Your task to perform on an android device: uninstall "NewsBreak: Local News & Alerts" Image 0: 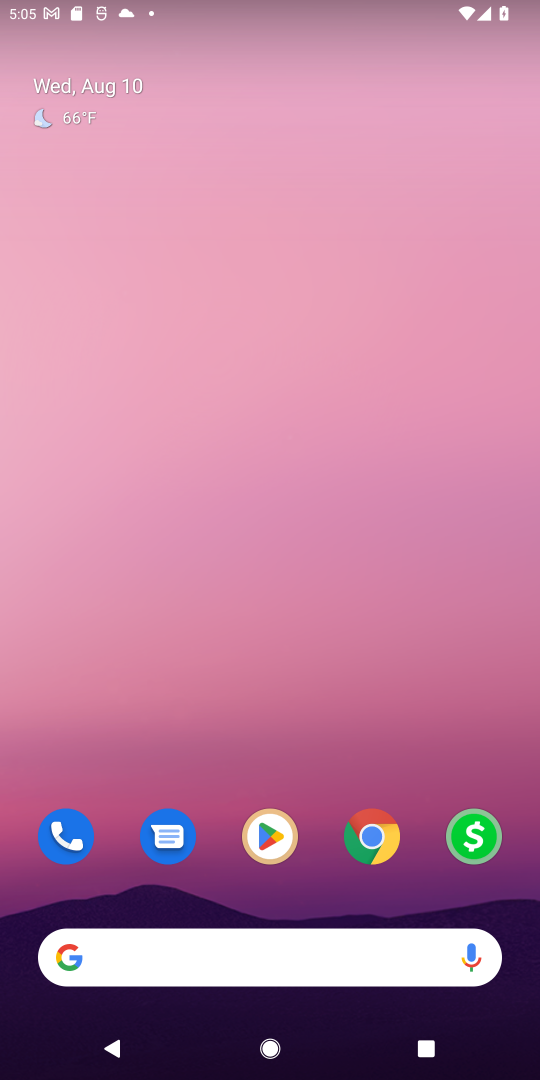
Step 0: drag from (246, 838) to (312, 255)
Your task to perform on an android device: uninstall "NewsBreak: Local News & Alerts" Image 1: 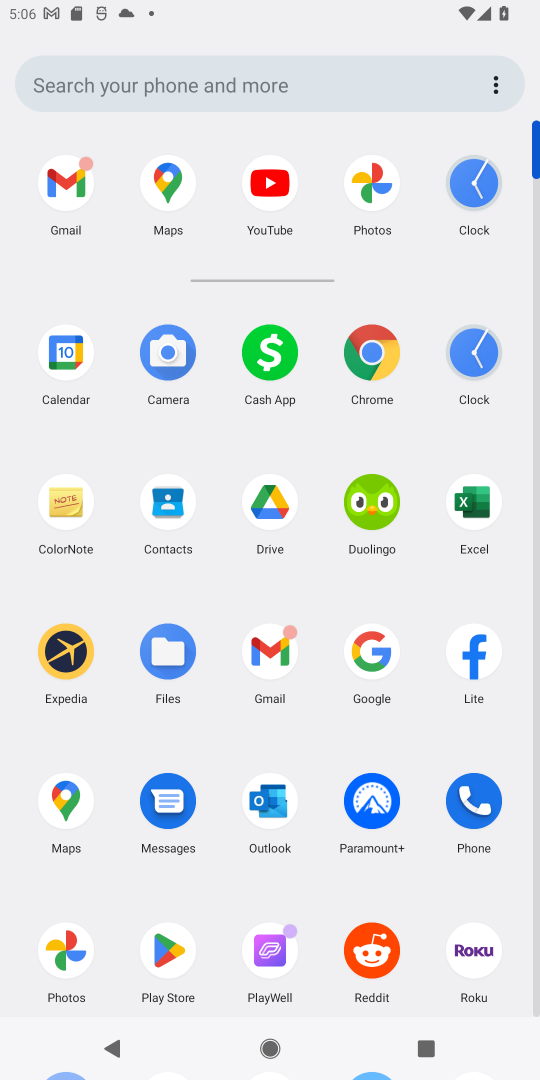
Step 1: click (171, 948)
Your task to perform on an android device: uninstall "NewsBreak: Local News & Alerts" Image 2: 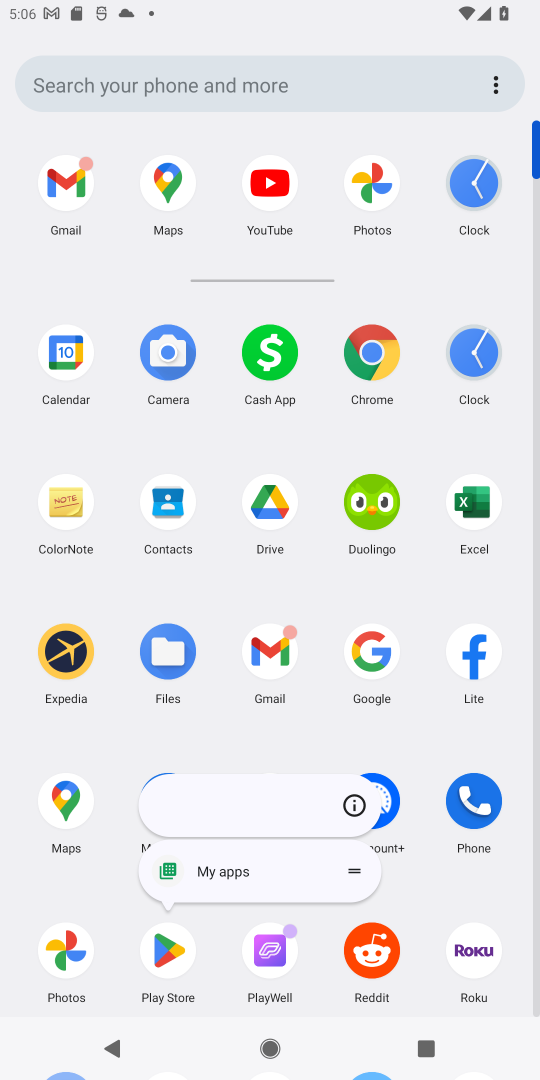
Step 2: click (162, 951)
Your task to perform on an android device: uninstall "NewsBreak: Local News & Alerts" Image 3: 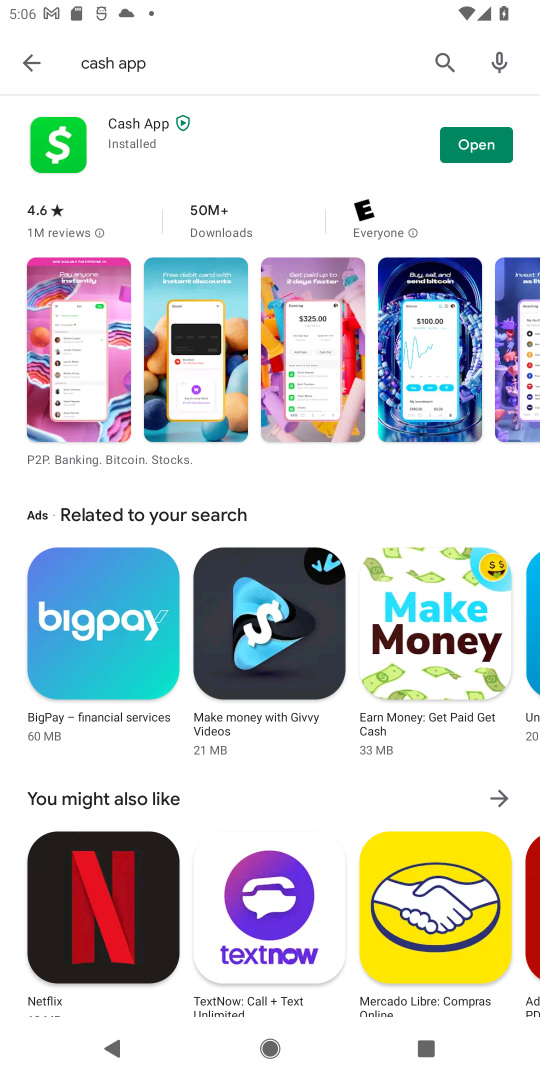
Step 3: click (36, 49)
Your task to perform on an android device: uninstall "NewsBreak: Local News & Alerts" Image 4: 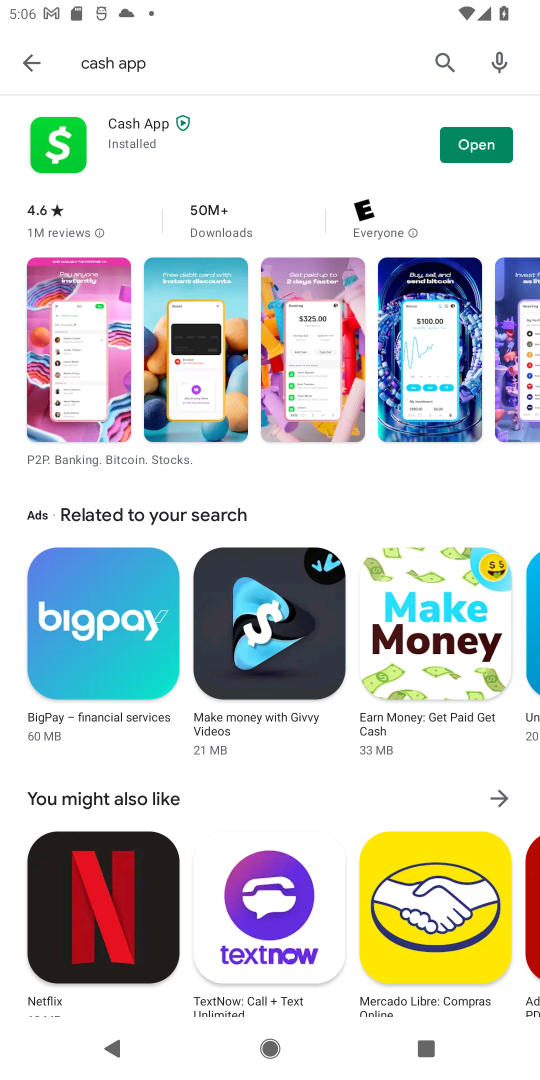
Step 4: click (47, 50)
Your task to perform on an android device: uninstall "NewsBreak: Local News & Alerts" Image 5: 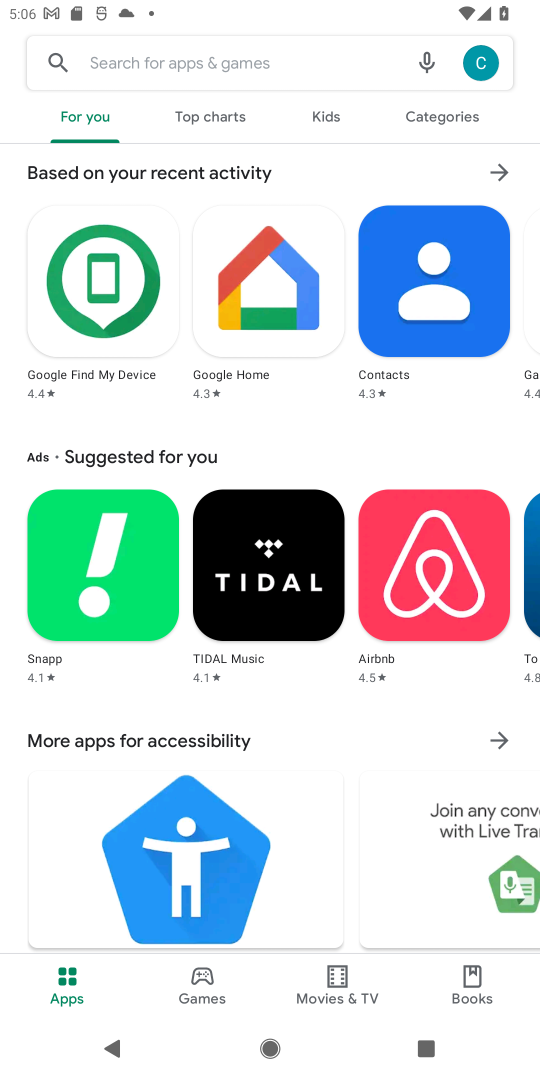
Step 5: click (278, 55)
Your task to perform on an android device: uninstall "NewsBreak: Local News & Alerts" Image 6: 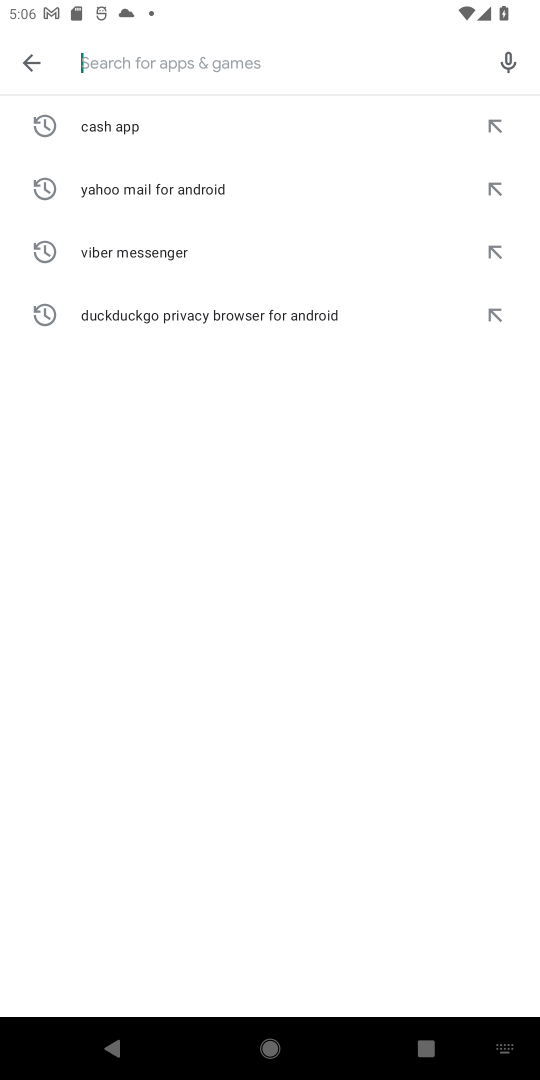
Step 6: type "NewsBreak: Local News & Alerts "
Your task to perform on an android device: uninstall "NewsBreak: Local News & Alerts" Image 7: 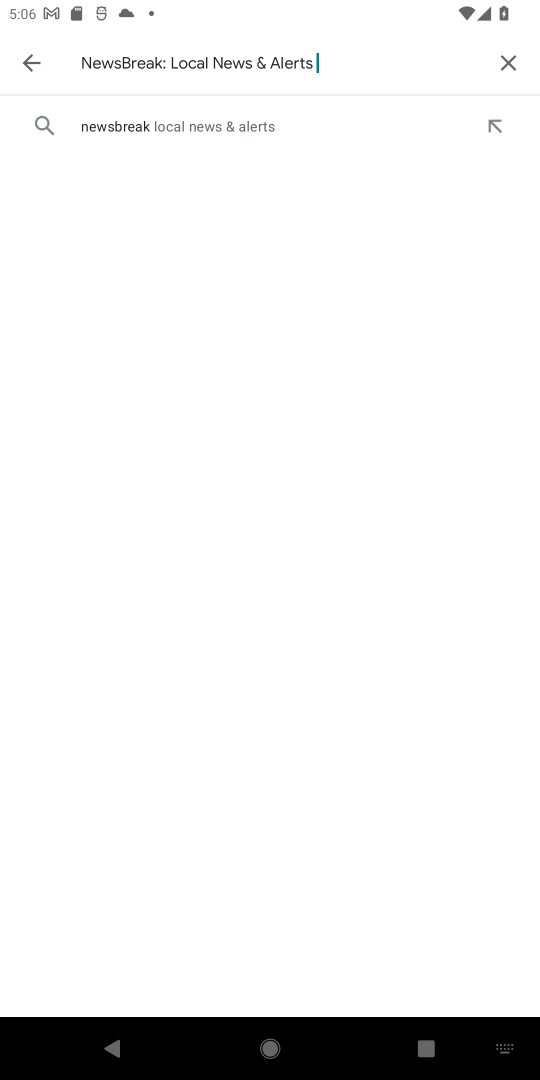
Step 7: click (216, 111)
Your task to perform on an android device: uninstall "NewsBreak: Local News & Alerts" Image 8: 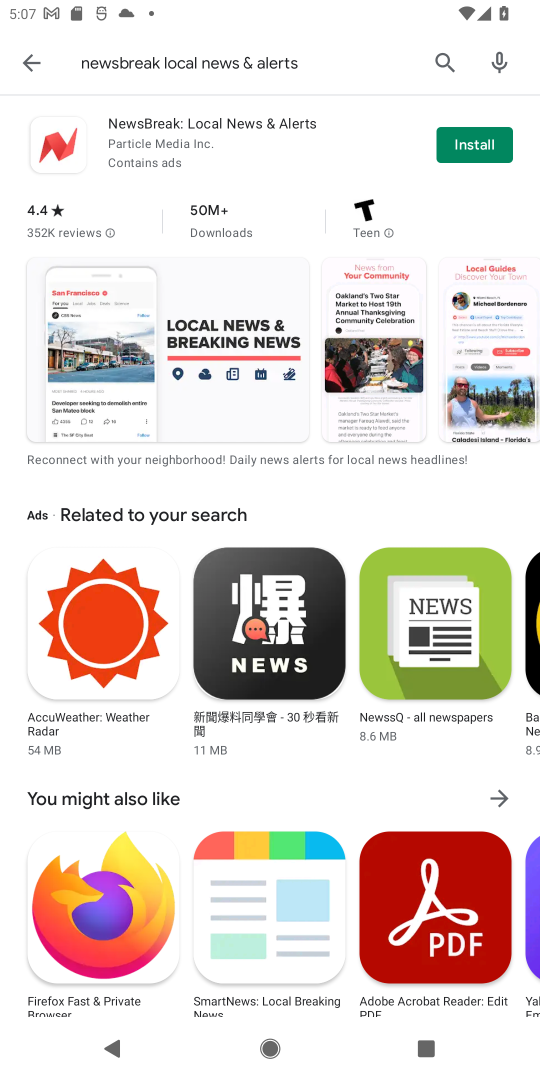
Step 8: task complete